Your task to perform on an android device: search for starred emails in the gmail app Image 0: 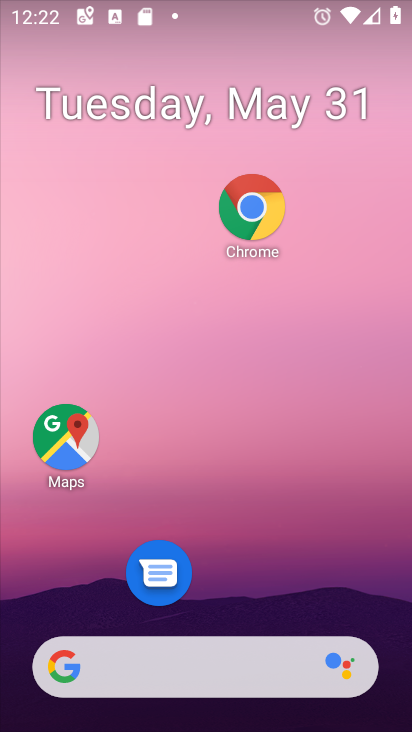
Step 0: drag from (236, 613) to (236, 128)
Your task to perform on an android device: search for starred emails in the gmail app Image 1: 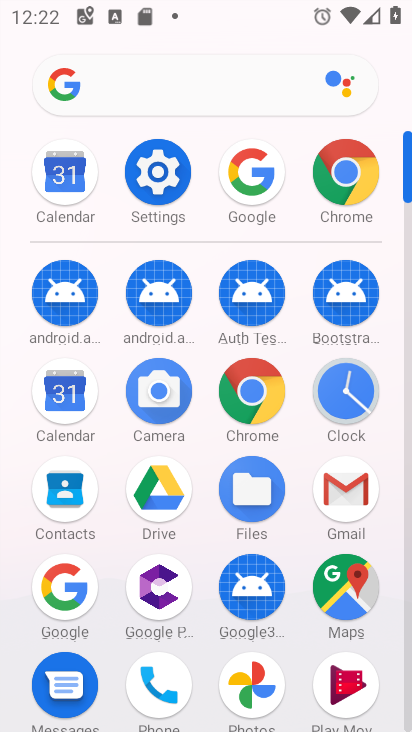
Step 1: click (360, 491)
Your task to perform on an android device: search for starred emails in the gmail app Image 2: 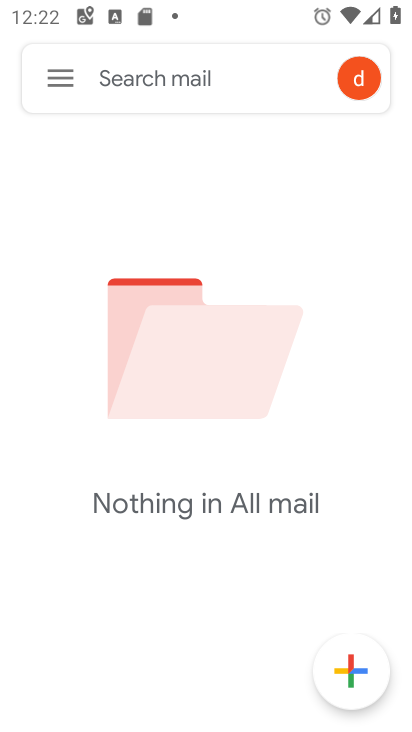
Step 2: click (61, 72)
Your task to perform on an android device: search for starred emails in the gmail app Image 3: 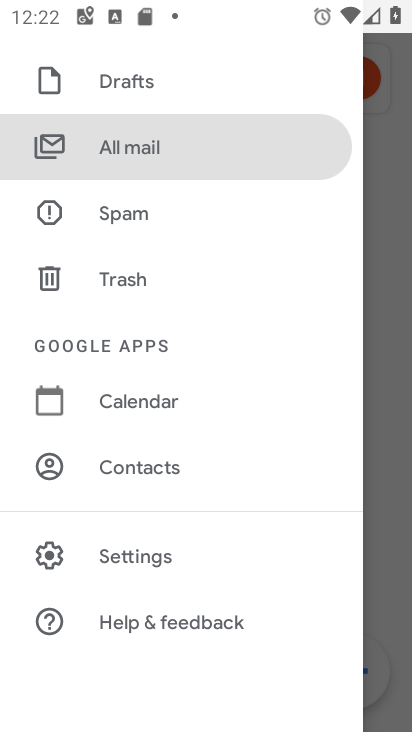
Step 3: drag from (170, 154) to (196, 598)
Your task to perform on an android device: search for starred emails in the gmail app Image 4: 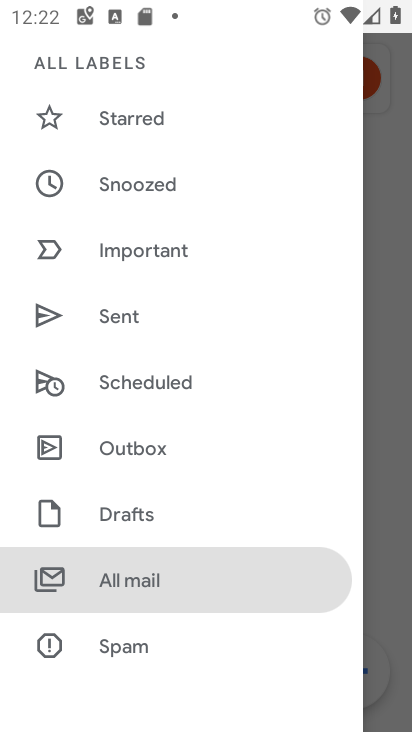
Step 4: click (158, 129)
Your task to perform on an android device: search for starred emails in the gmail app Image 5: 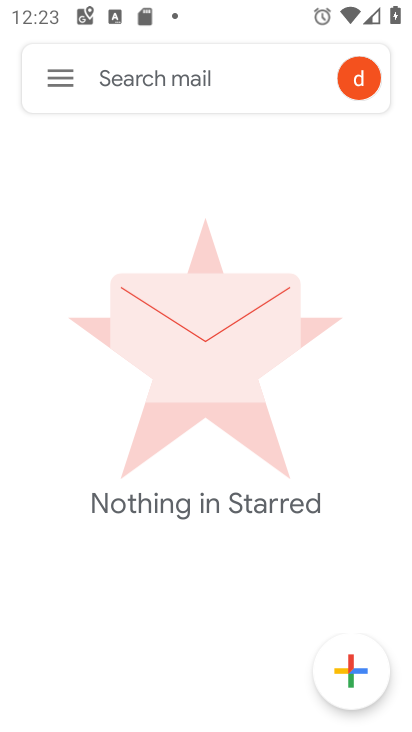
Step 5: task complete